Your task to perform on an android device: Open my contact list Image 0: 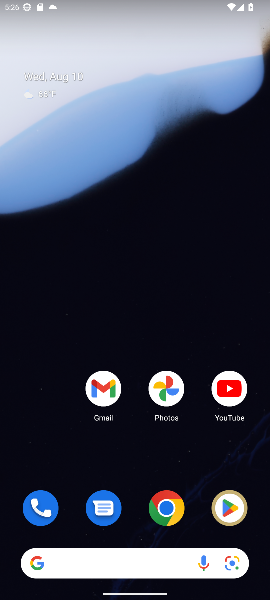
Step 0: press home button
Your task to perform on an android device: Open my contact list Image 1: 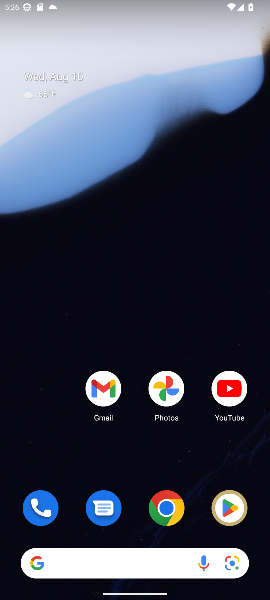
Step 1: drag from (55, 443) to (71, 39)
Your task to perform on an android device: Open my contact list Image 2: 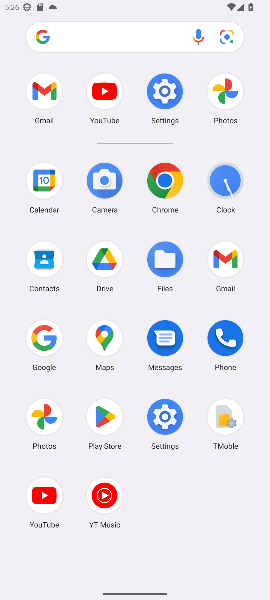
Step 2: click (44, 263)
Your task to perform on an android device: Open my contact list Image 3: 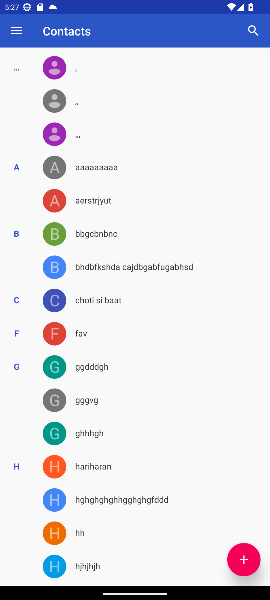
Step 3: task complete